Your task to perform on an android device: Go to Wikipedia Image 0: 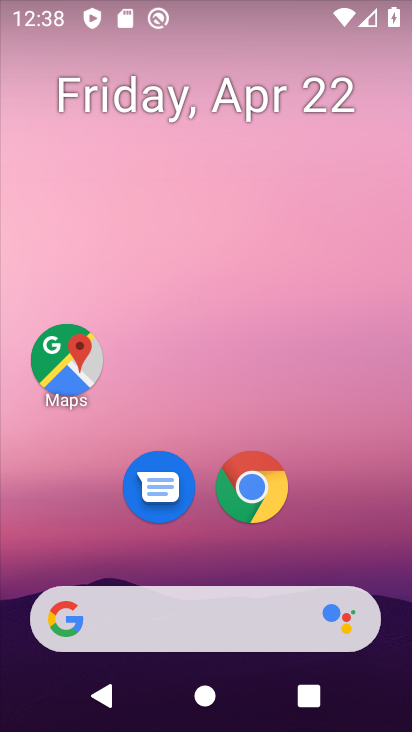
Step 0: drag from (221, 482) to (246, 175)
Your task to perform on an android device: Go to Wikipedia Image 1: 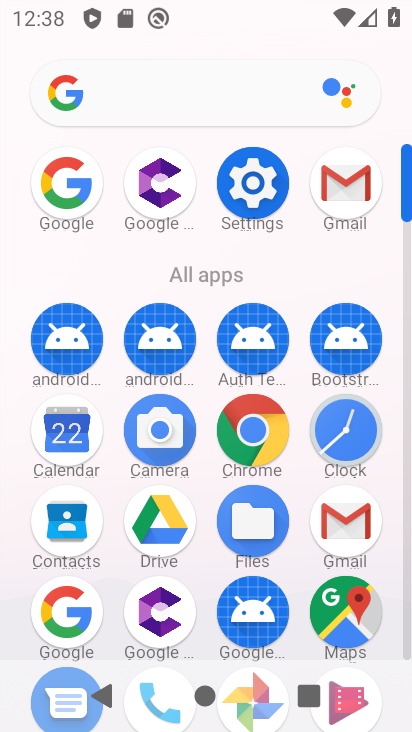
Step 1: click (77, 208)
Your task to perform on an android device: Go to Wikipedia Image 2: 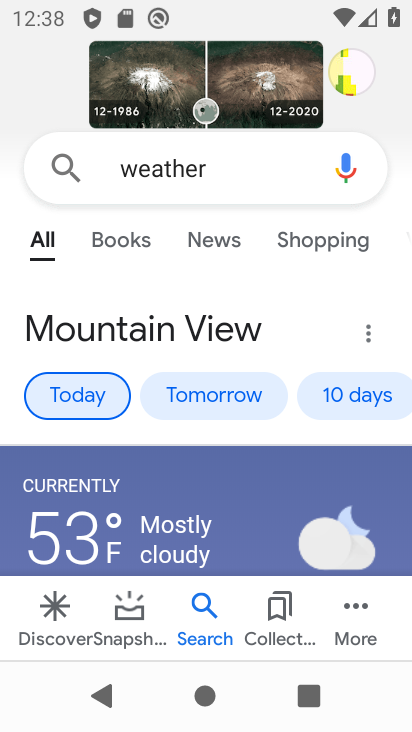
Step 2: click (225, 170)
Your task to perform on an android device: Go to Wikipedia Image 3: 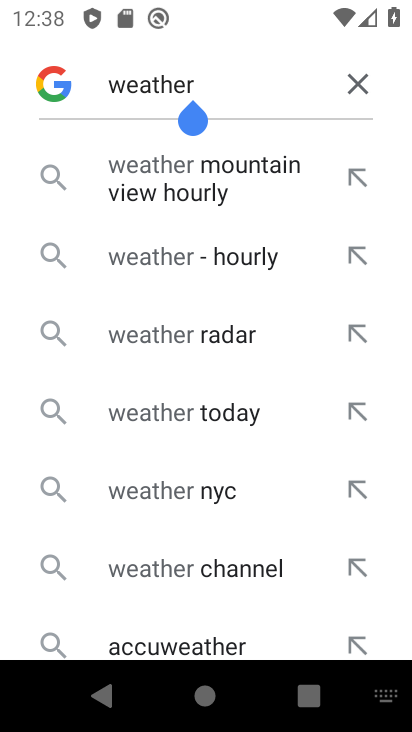
Step 3: click (349, 88)
Your task to perform on an android device: Go to Wikipedia Image 4: 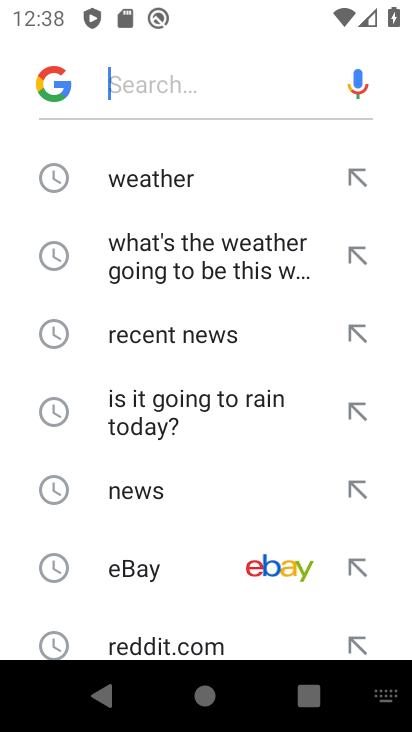
Step 4: type "Wikipedia"
Your task to perform on an android device: Go to Wikipedia Image 5: 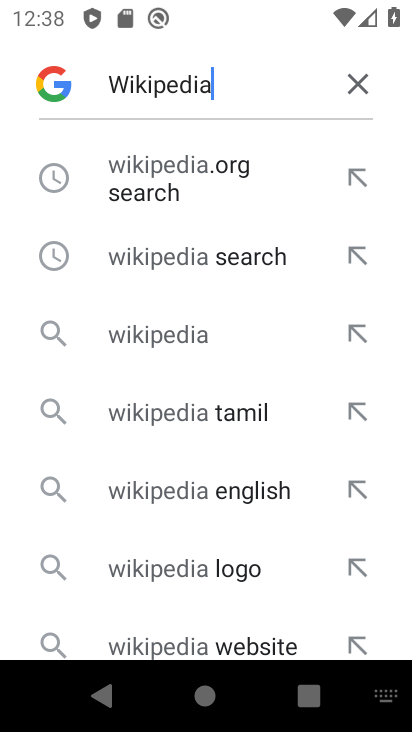
Step 5: click (205, 333)
Your task to perform on an android device: Go to Wikipedia Image 6: 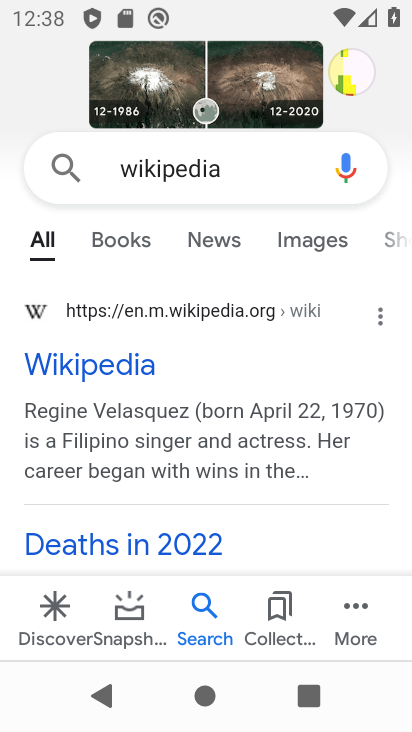
Step 6: click (125, 361)
Your task to perform on an android device: Go to Wikipedia Image 7: 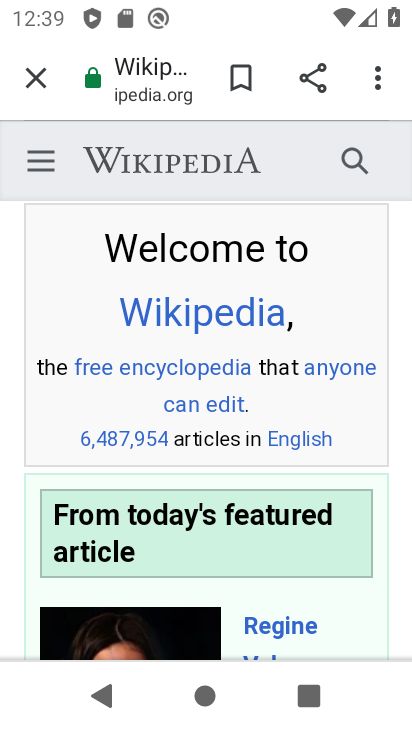
Step 7: task complete